Your task to perform on an android device: Search for Mexican restaurants on Maps Image 0: 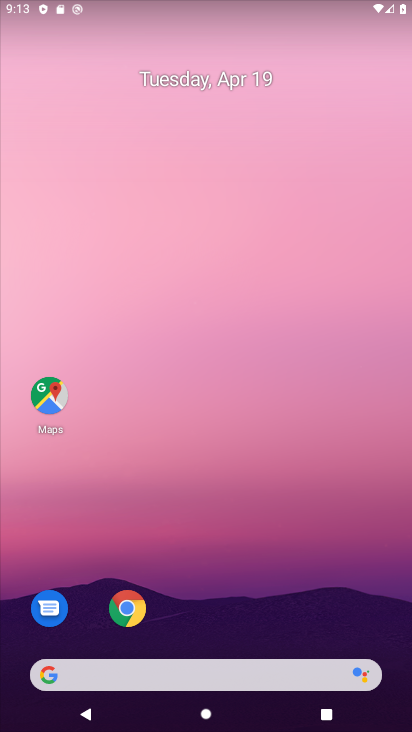
Step 0: drag from (338, 99) to (311, 119)
Your task to perform on an android device: Search for Mexican restaurants on Maps Image 1: 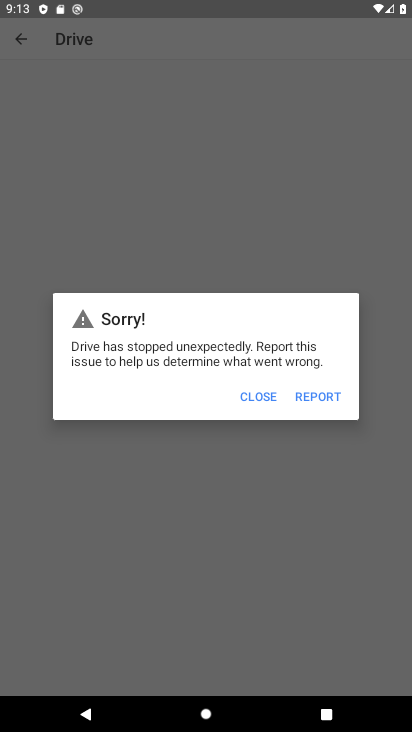
Step 1: press home button
Your task to perform on an android device: Search for Mexican restaurants on Maps Image 2: 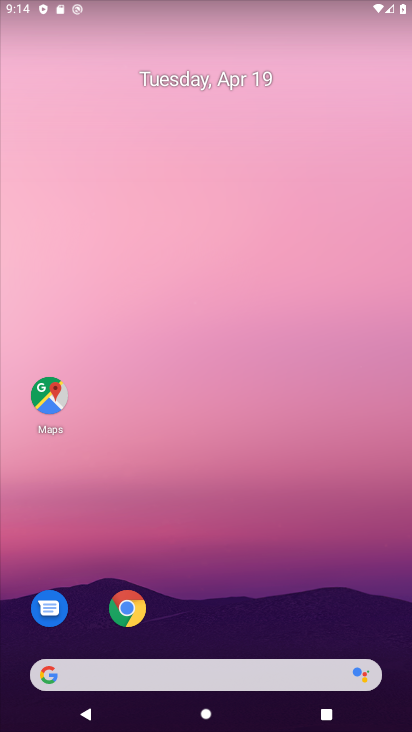
Step 2: click (48, 397)
Your task to perform on an android device: Search for Mexican restaurants on Maps Image 3: 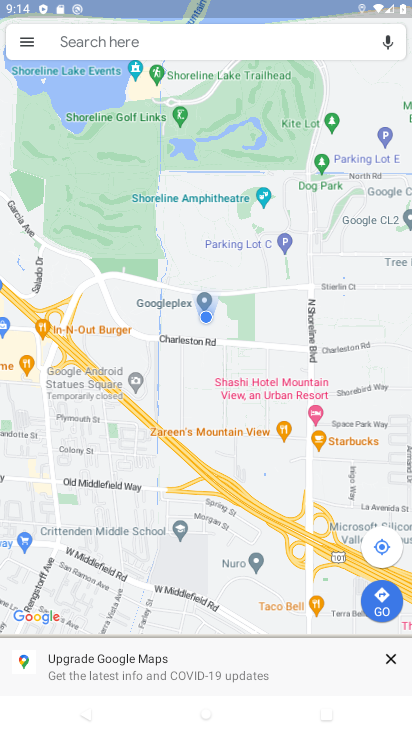
Step 3: click (92, 36)
Your task to perform on an android device: Search for Mexican restaurants on Maps Image 4: 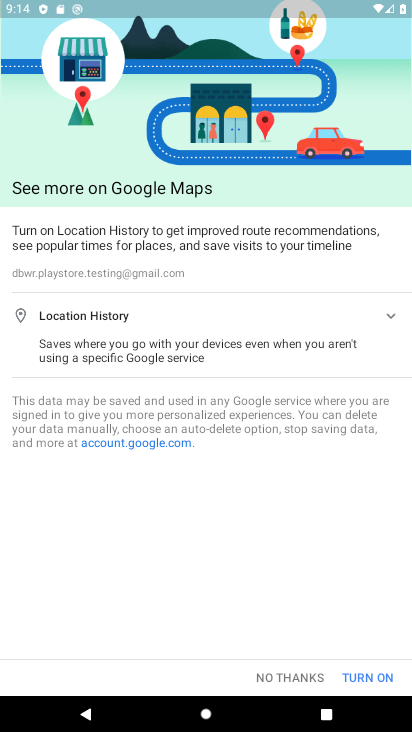
Step 4: click (290, 676)
Your task to perform on an android device: Search for Mexican restaurants on Maps Image 5: 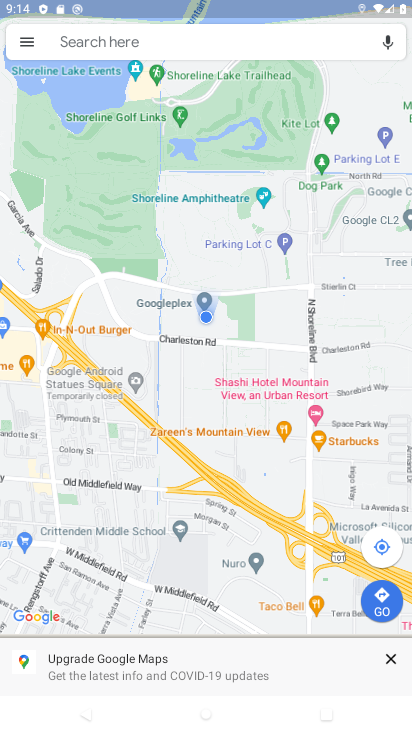
Step 5: click (96, 38)
Your task to perform on an android device: Search for Mexican restaurants on Maps Image 6: 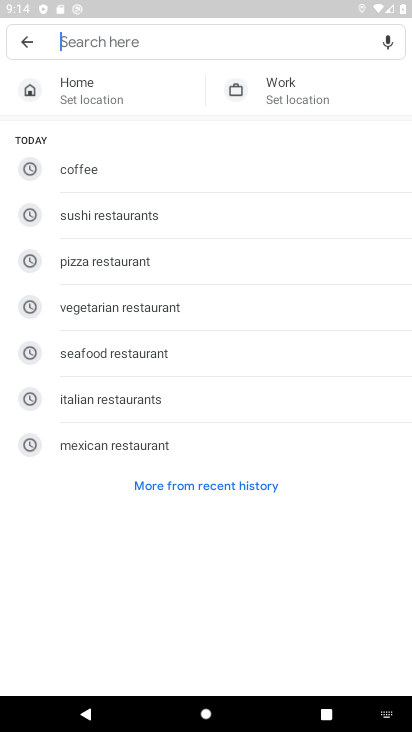
Step 6: type "mexican restaurants"
Your task to perform on an android device: Search for Mexican restaurants on Maps Image 7: 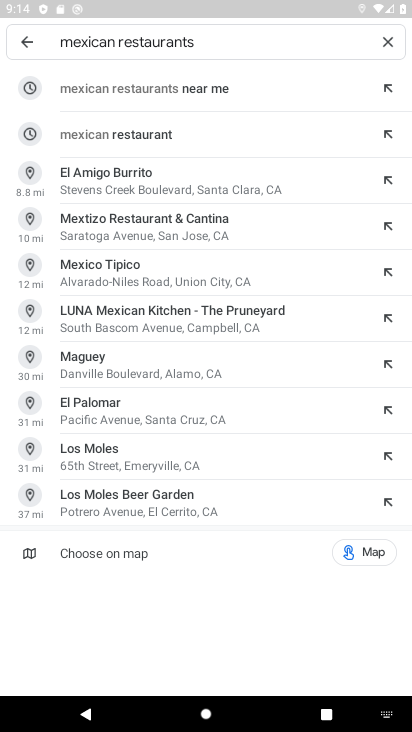
Step 7: click (113, 130)
Your task to perform on an android device: Search for Mexican restaurants on Maps Image 8: 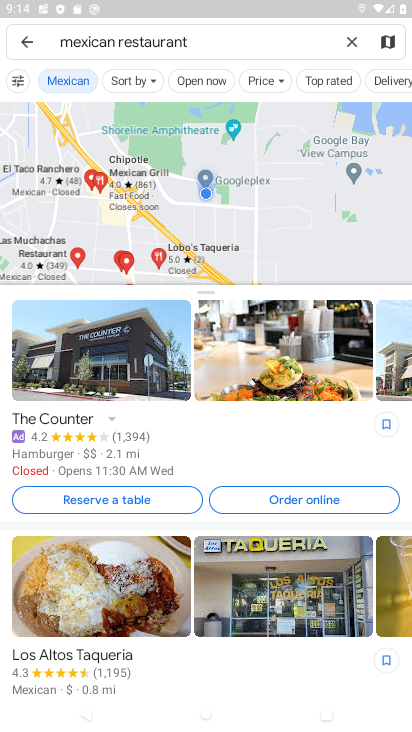
Step 8: task complete